Your task to perform on an android device: open app "Firefox Browser" (install if not already installed) Image 0: 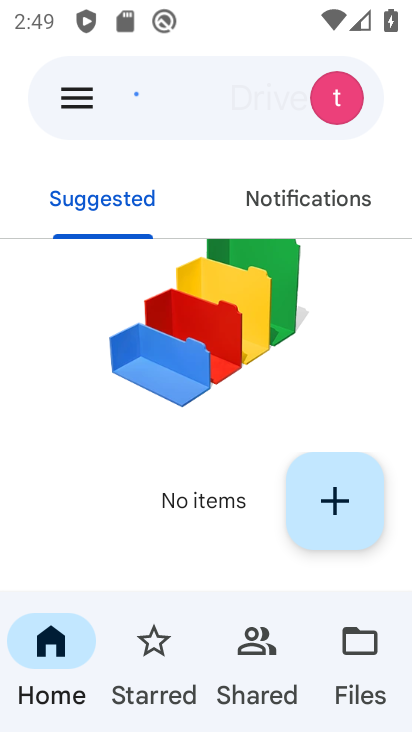
Step 0: press home button
Your task to perform on an android device: open app "Firefox Browser" (install if not already installed) Image 1: 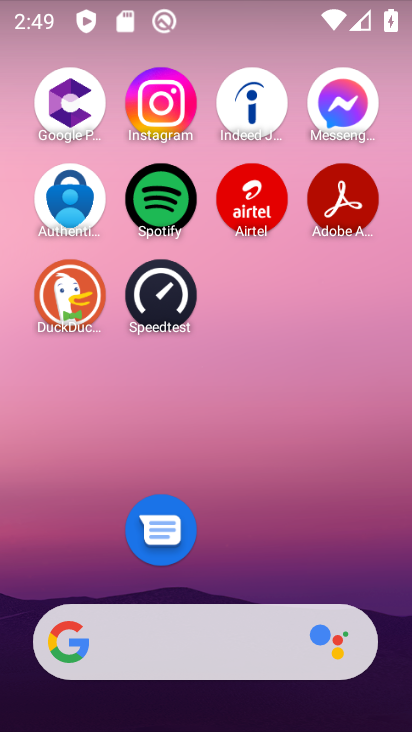
Step 1: drag from (199, 592) to (132, 4)
Your task to perform on an android device: open app "Firefox Browser" (install if not already installed) Image 2: 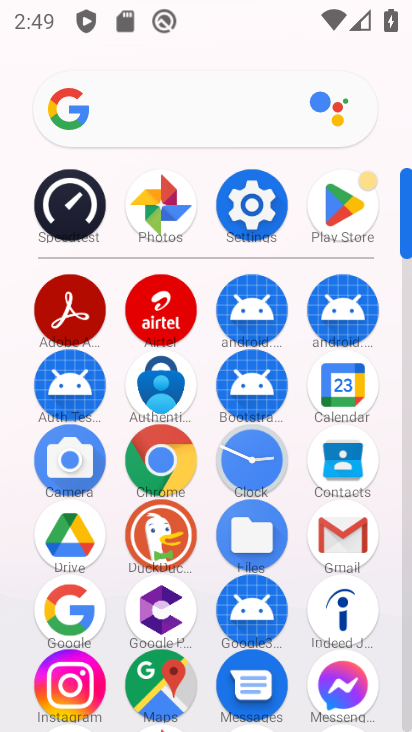
Step 2: click (339, 211)
Your task to perform on an android device: open app "Firefox Browser" (install if not already installed) Image 3: 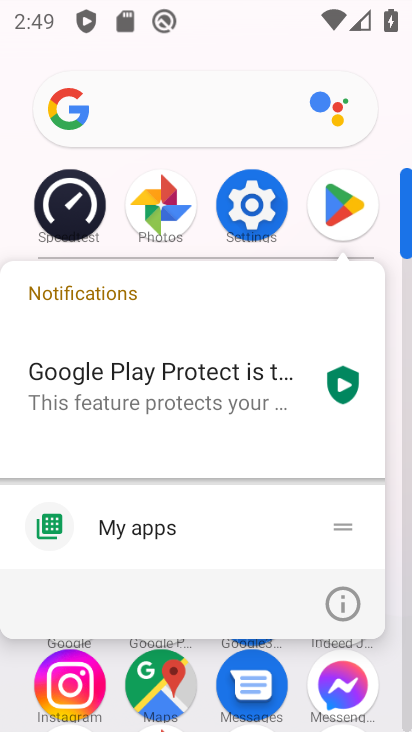
Step 3: click (348, 210)
Your task to perform on an android device: open app "Firefox Browser" (install if not already installed) Image 4: 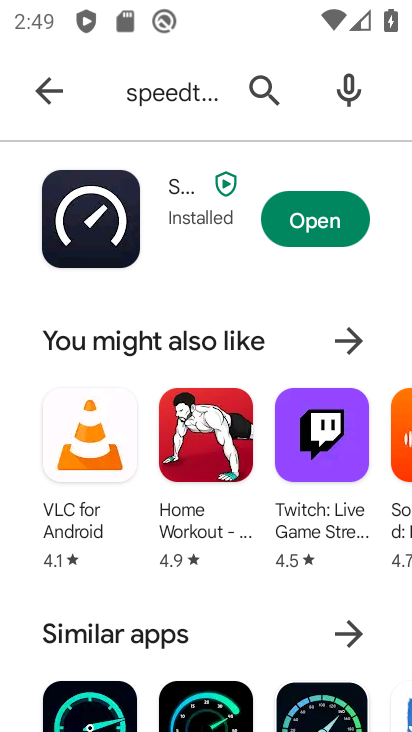
Step 4: click (151, 92)
Your task to perform on an android device: open app "Firefox Browser" (install if not already installed) Image 5: 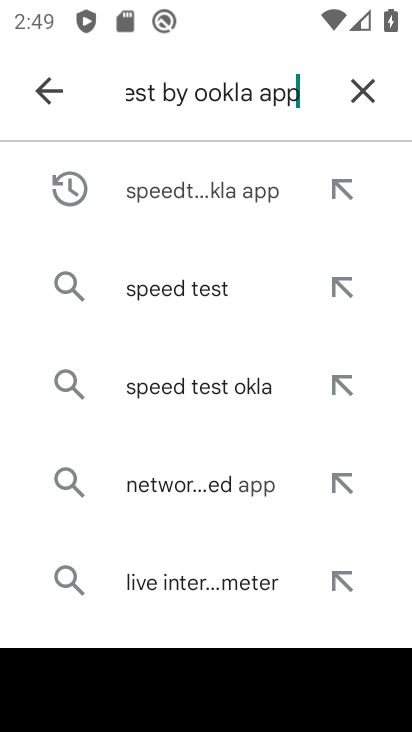
Step 5: click (362, 88)
Your task to perform on an android device: open app "Firefox Browser" (install if not already installed) Image 6: 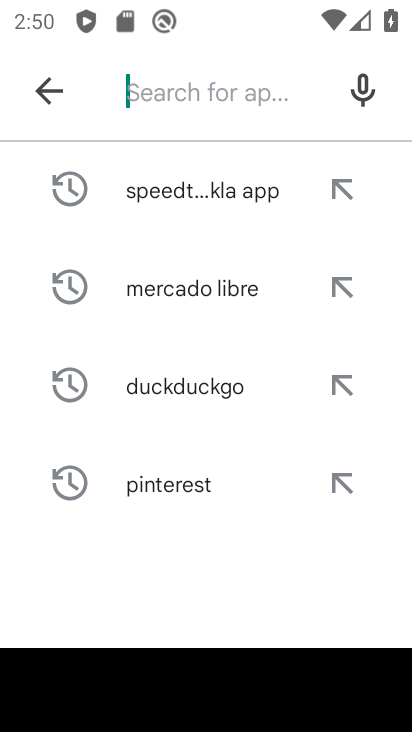
Step 6: type "firefox browser"
Your task to perform on an android device: open app "Firefox Browser" (install if not already installed) Image 7: 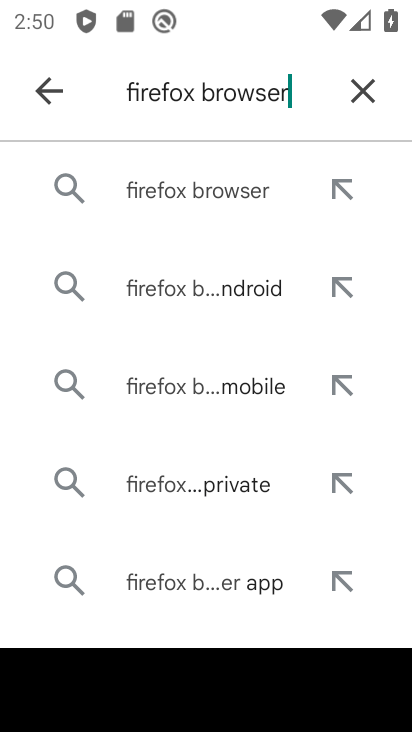
Step 7: click (150, 204)
Your task to perform on an android device: open app "Firefox Browser" (install if not already installed) Image 8: 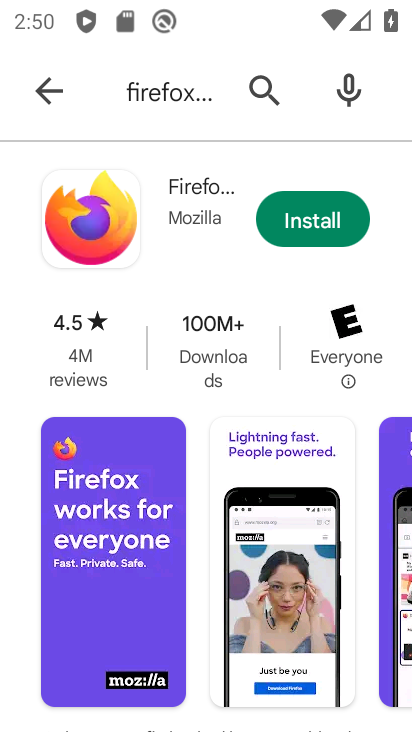
Step 8: click (316, 215)
Your task to perform on an android device: open app "Firefox Browser" (install if not already installed) Image 9: 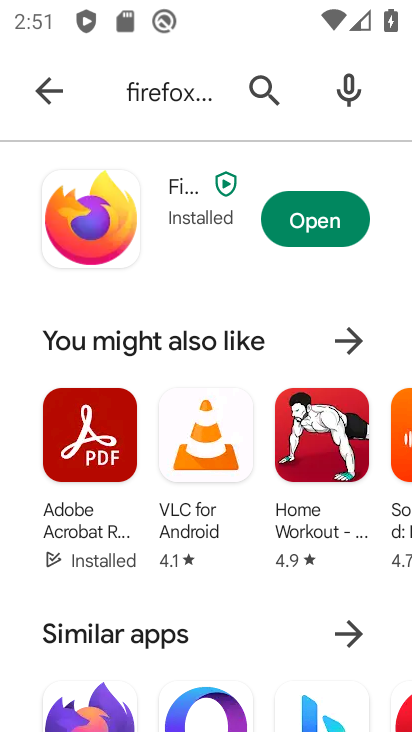
Step 9: click (336, 216)
Your task to perform on an android device: open app "Firefox Browser" (install if not already installed) Image 10: 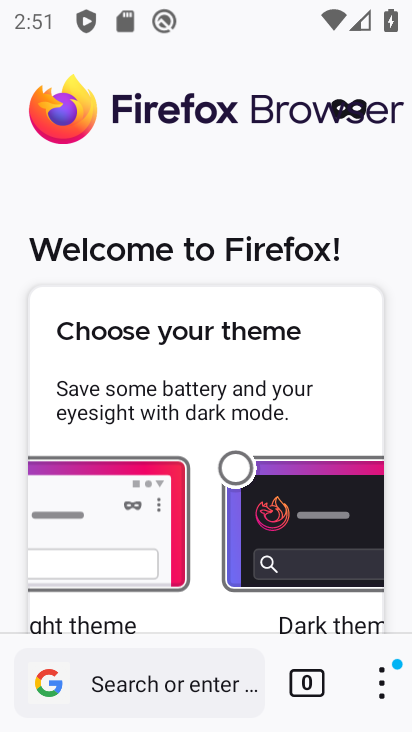
Step 10: task complete